Your task to perform on an android device: turn on location history Image 0: 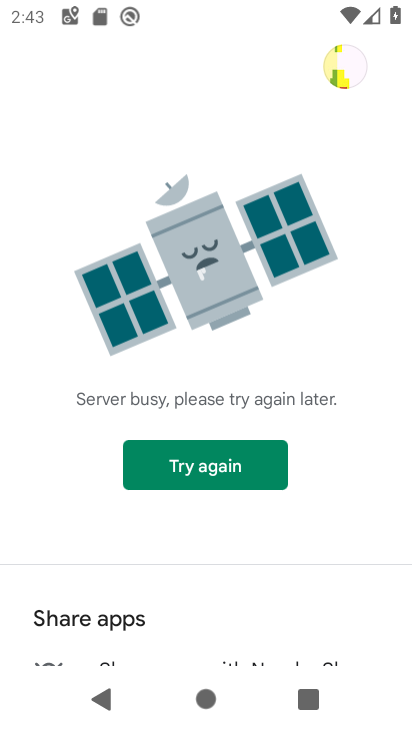
Step 0: press back button
Your task to perform on an android device: turn on location history Image 1: 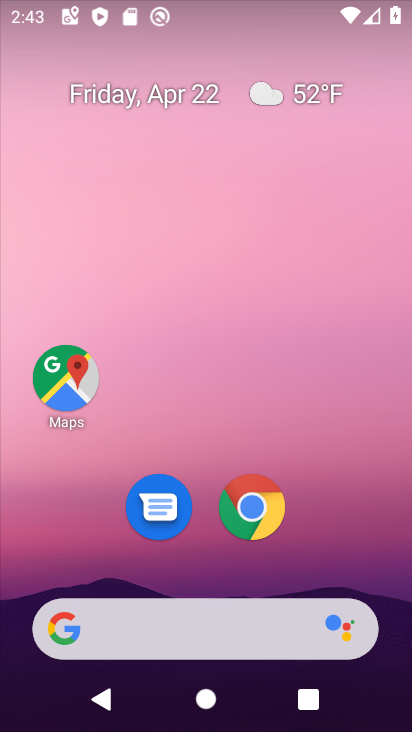
Step 1: drag from (138, 592) to (245, 79)
Your task to perform on an android device: turn on location history Image 2: 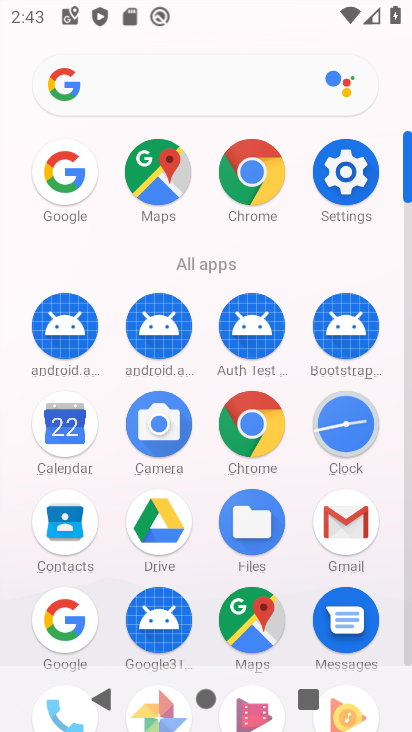
Step 2: drag from (145, 558) to (207, 308)
Your task to perform on an android device: turn on location history Image 3: 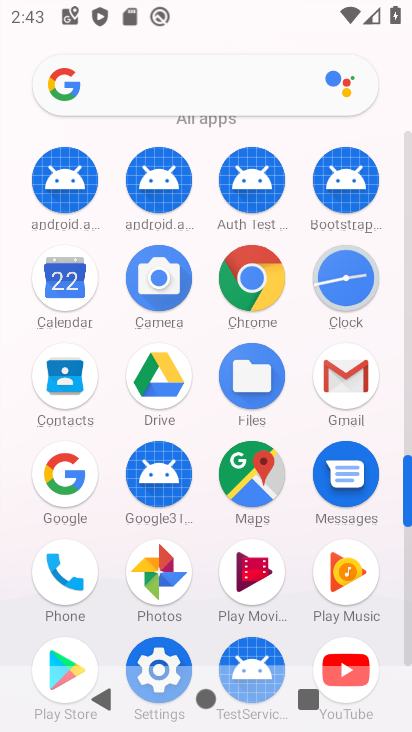
Step 3: click (152, 651)
Your task to perform on an android device: turn on location history Image 4: 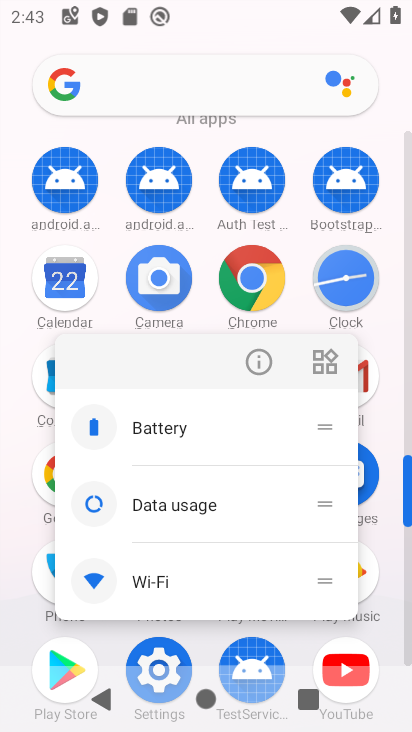
Step 4: click (158, 637)
Your task to perform on an android device: turn on location history Image 5: 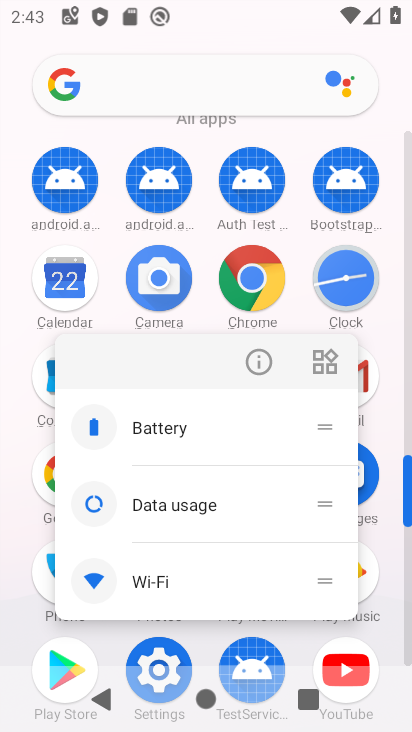
Step 5: click (164, 656)
Your task to perform on an android device: turn on location history Image 6: 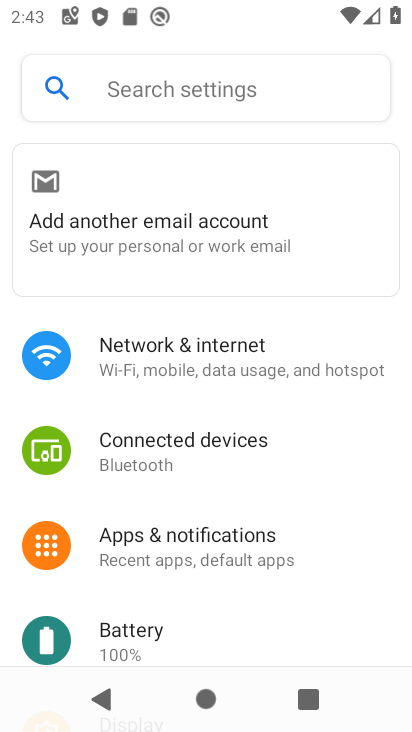
Step 6: drag from (164, 600) to (356, 196)
Your task to perform on an android device: turn on location history Image 7: 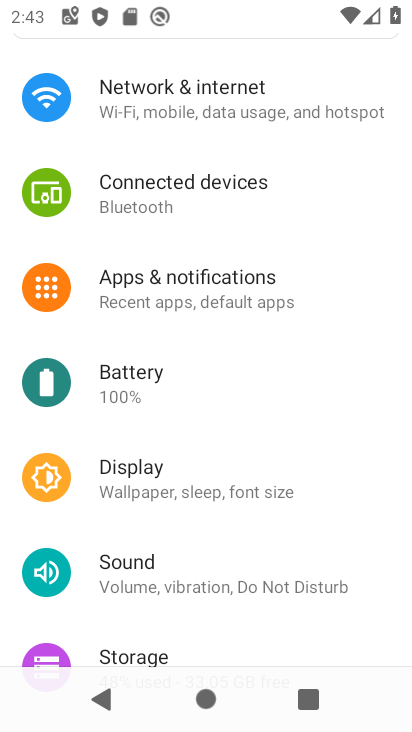
Step 7: drag from (140, 590) to (231, 233)
Your task to perform on an android device: turn on location history Image 8: 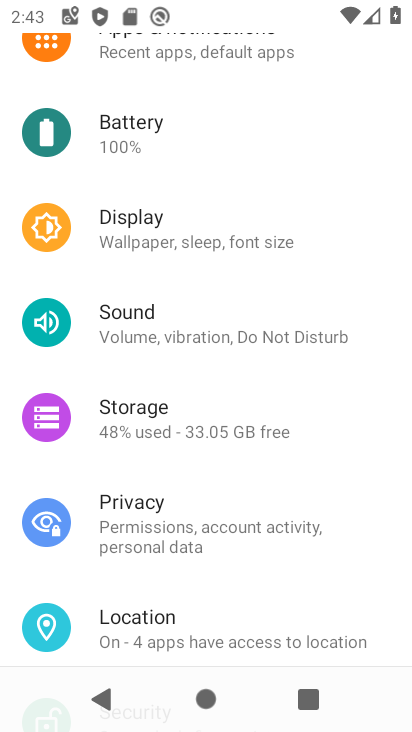
Step 8: click (103, 620)
Your task to perform on an android device: turn on location history Image 9: 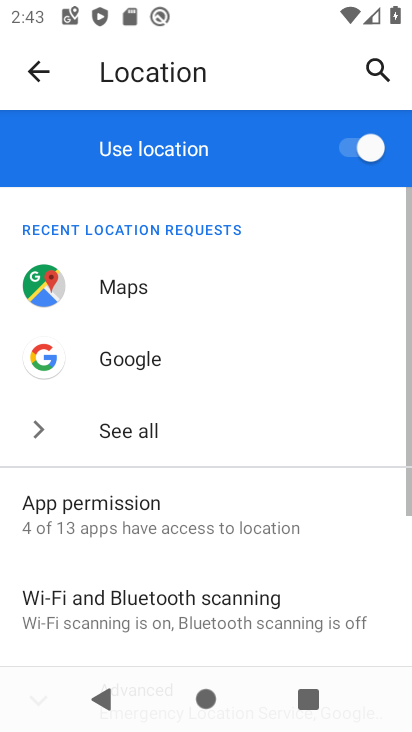
Step 9: drag from (84, 589) to (220, 362)
Your task to perform on an android device: turn on location history Image 10: 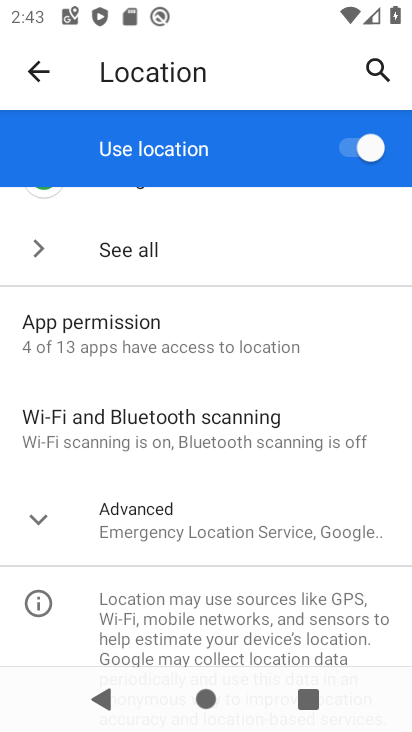
Step 10: click (138, 506)
Your task to perform on an android device: turn on location history Image 11: 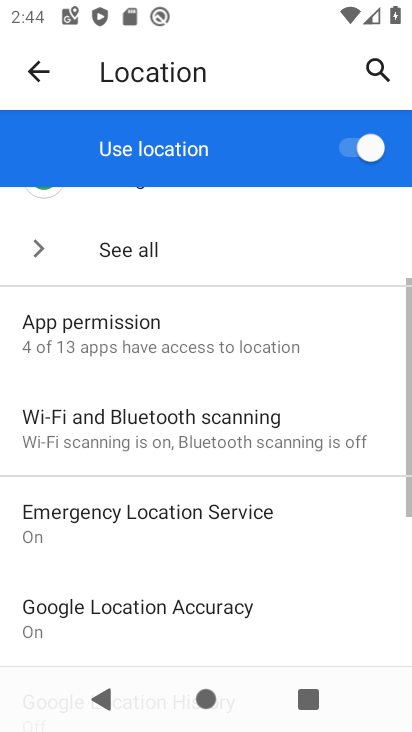
Step 11: drag from (193, 554) to (315, 336)
Your task to perform on an android device: turn on location history Image 12: 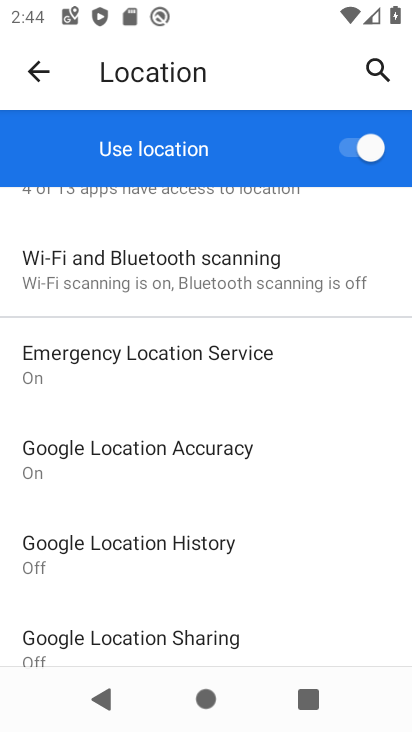
Step 12: click (191, 549)
Your task to perform on an android device: turn on location history Image 13: 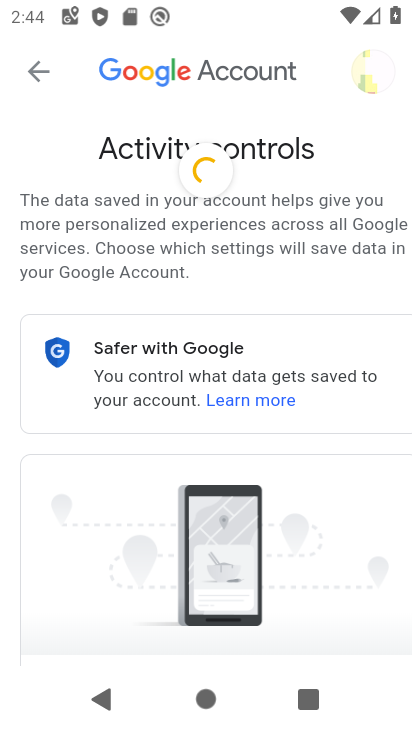
Step 13: drag from (149, 596) to (346, 169)
Your task to perform on an android device: turn on location history Image 14: 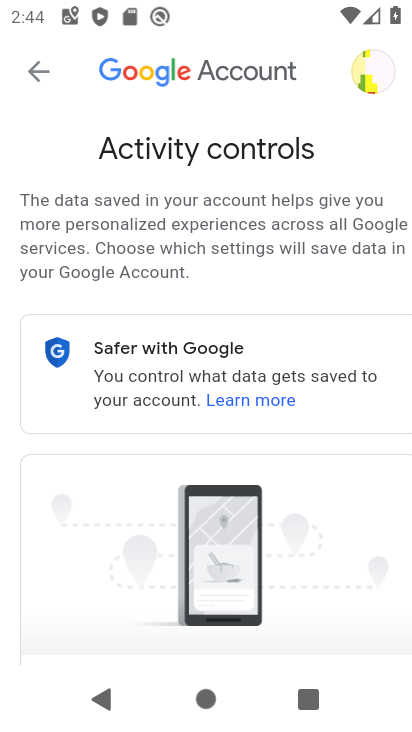
Step 14: drag from (184, 551) to (288, 196)
Your task to perform on an android device: turn on location history Image 15: 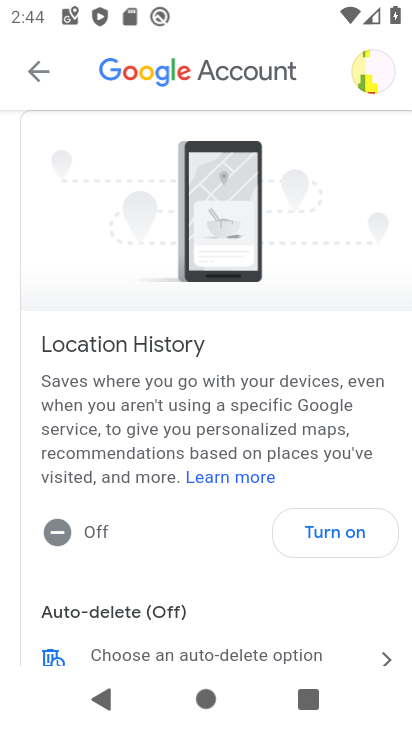
Step 15: drag from (185, 628) to (235, 388)
Your task to perform on an android device: turn on location history Image 16: 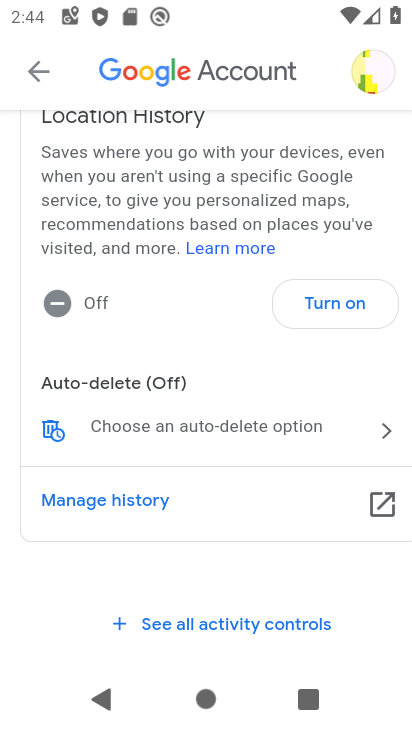
Step 16: click (334, 294)
Your task to perform on an android device: turn on location history Image 17: 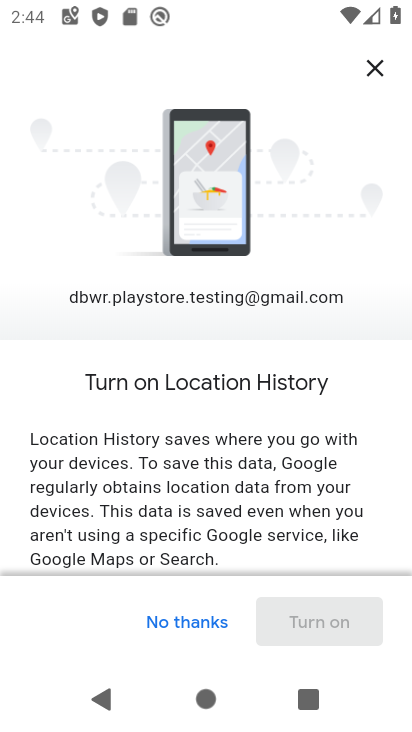
Step 17: drag from (178, 552) to (304, 169)
Your task to perform on an android device: turn on location history Image 18: 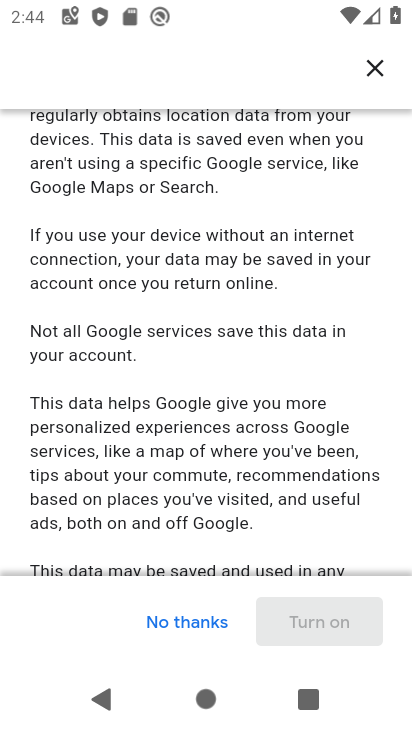
Step 18: drag from (217, 483) to (323, 195)
Your task to perform on an android device: turn on location history Image 19: 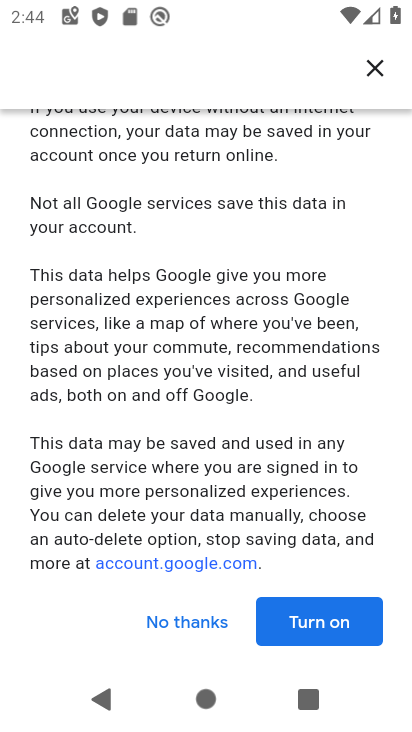
Step 19: click (330, 627)
Your task to perform on an android device: turn on location history Image 20: 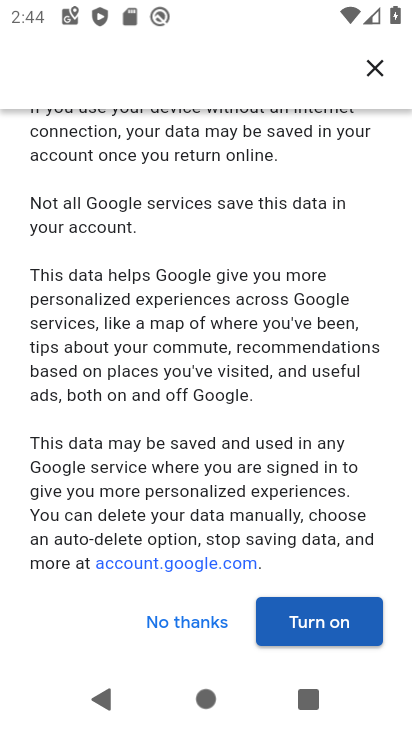
Step 20: click (324, 636)
Your task to perform on an android device: turn on location history Image 21: 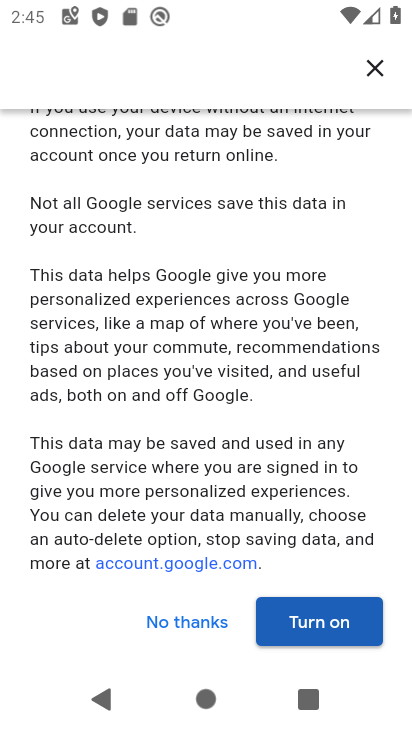
Step 21: click (307, 639)
Your task to perform on an android device: turn on location history Image 22: 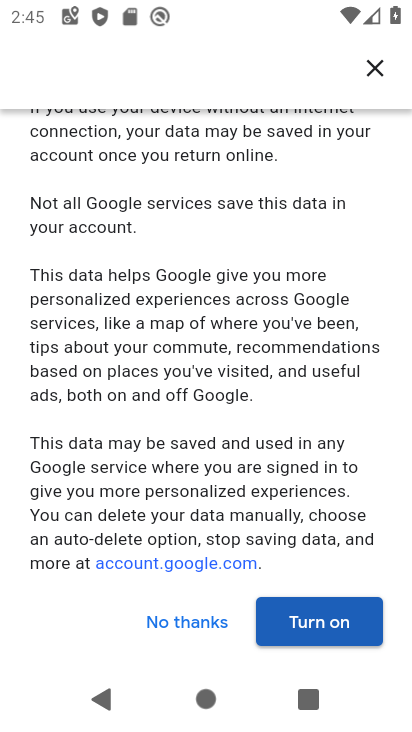
Step 22: click (319, 632)
Your task to perform on an android device: turn on location history Image 23: 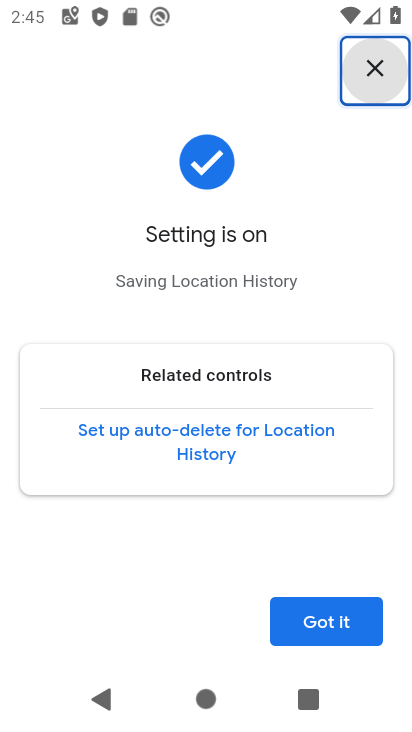
Step 23: click (318, 623)
Your task to perform on an android device: turn on location history Image 24: 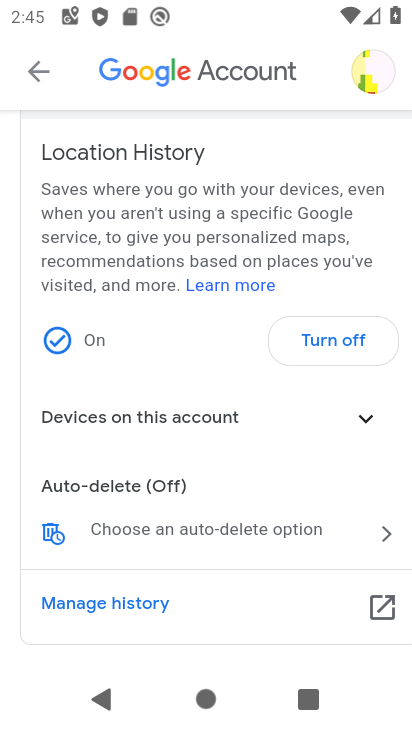
Step 24: task complete